Your task to perform on an android device: Open Chrome and go to the settings page Image 0: 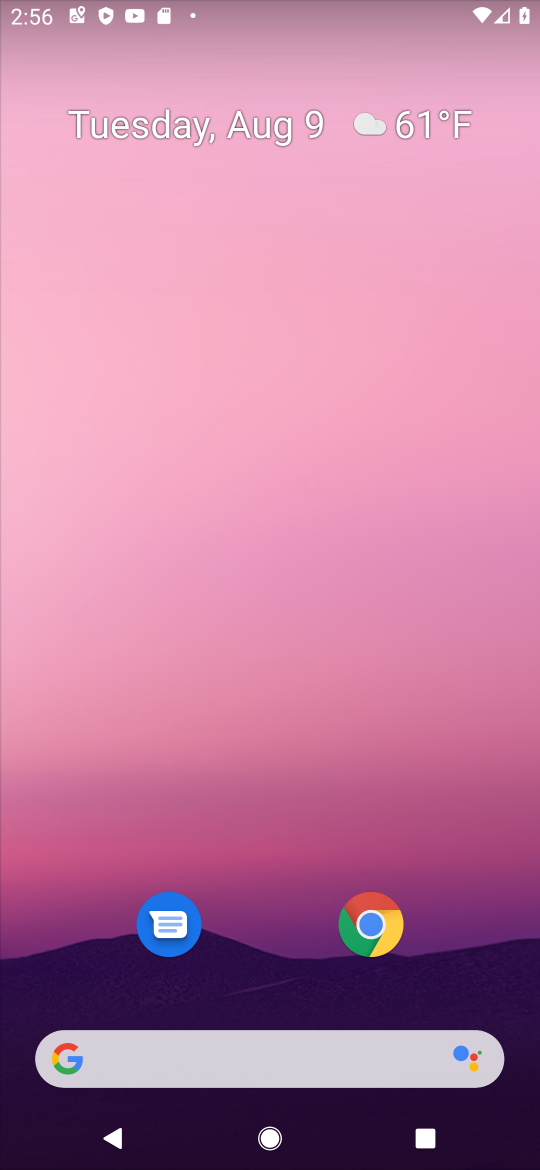
Step 0: click (378, 915)
Your task to perform on an android device: Open Chrome and go to the settings page Image 1: 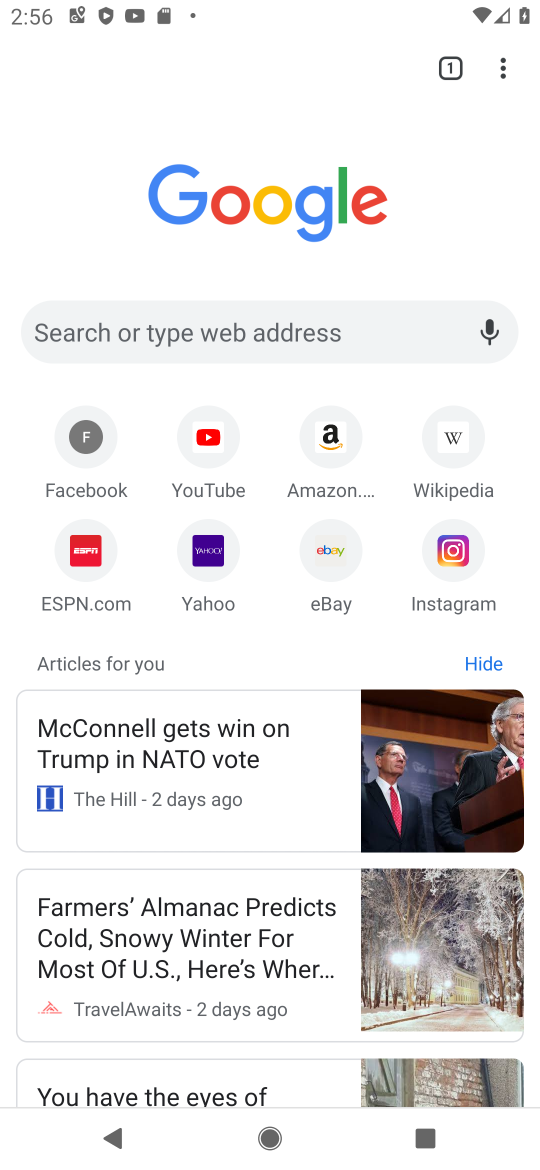
Step 1: click (508, 74)
Your task to perform on an android device: Open Chrome and go to the settings page Image 2: 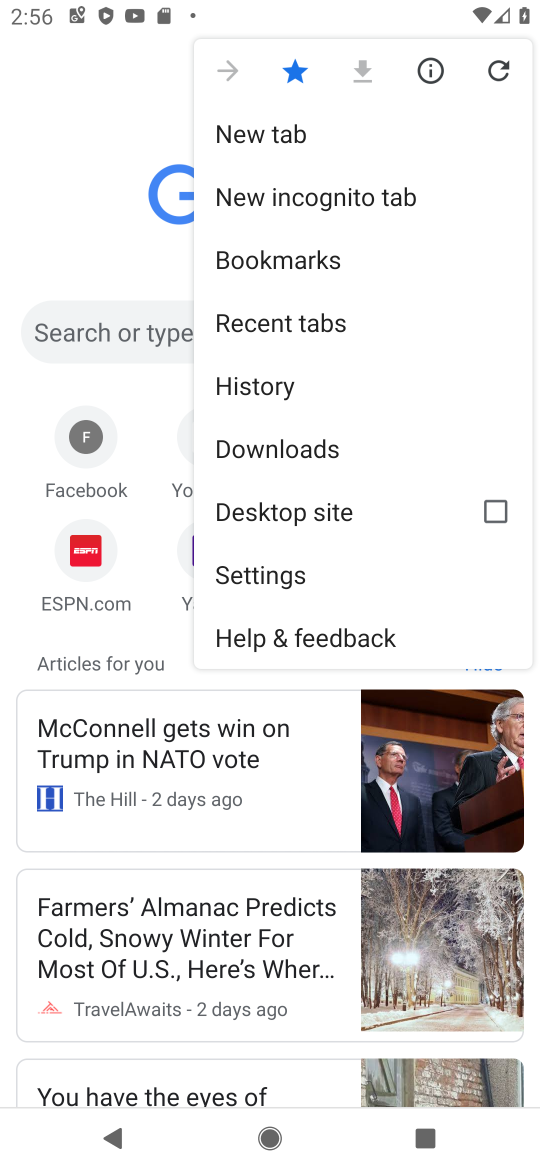
Step 2: click (277, 569)
Your task to perform on an android device: Open Chrome and go to the settings page Image 3: 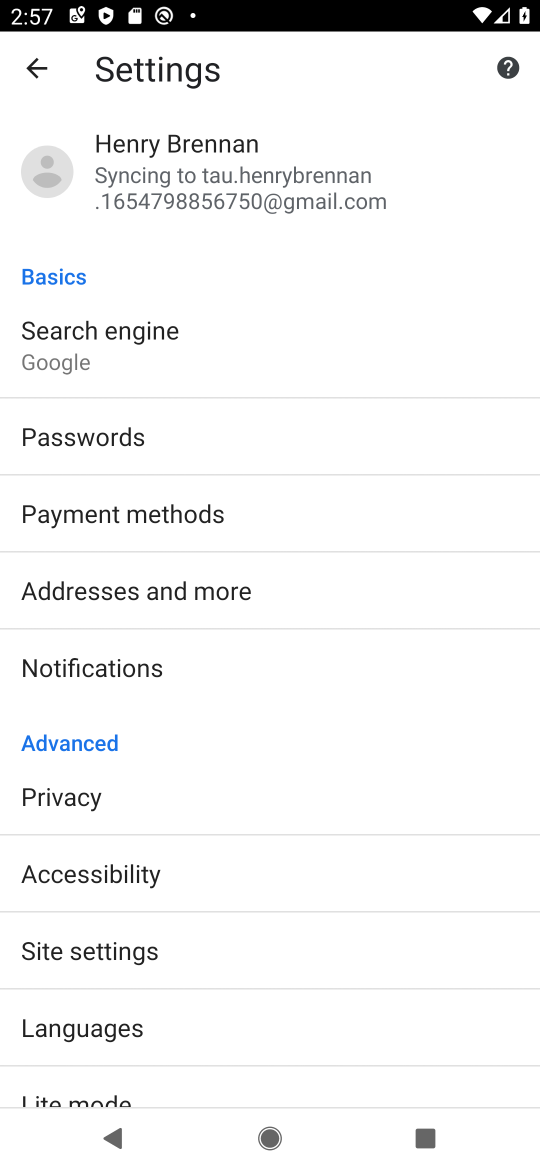
Step 3: task complete